Your task to perform on an android device: turn vacation reply on in the gmail app Image 0: 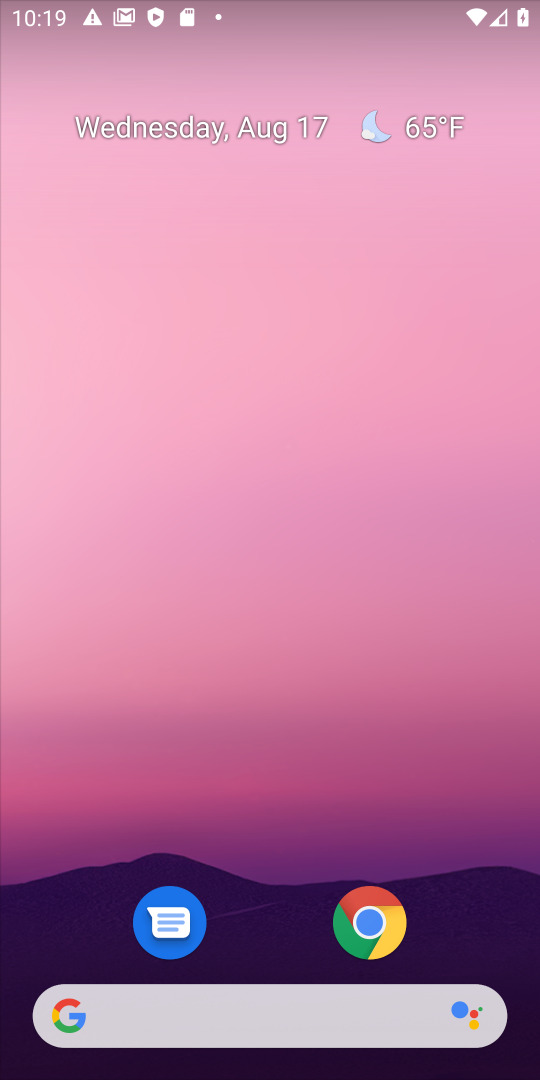
Step 0: drag from (262, 931) to (263, 47)
Your task to perform on an android device: turn vacation reply on in the gmail app Image 1: 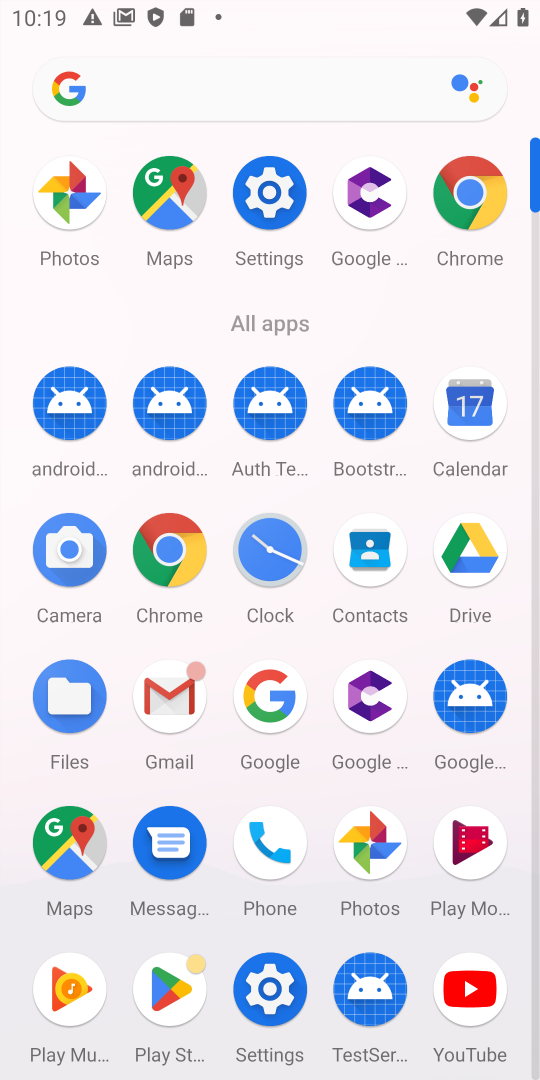
Step 1: click (173, 705)
Your task to perform on an android device: turn vacation reply on in the gmail app Image 2: 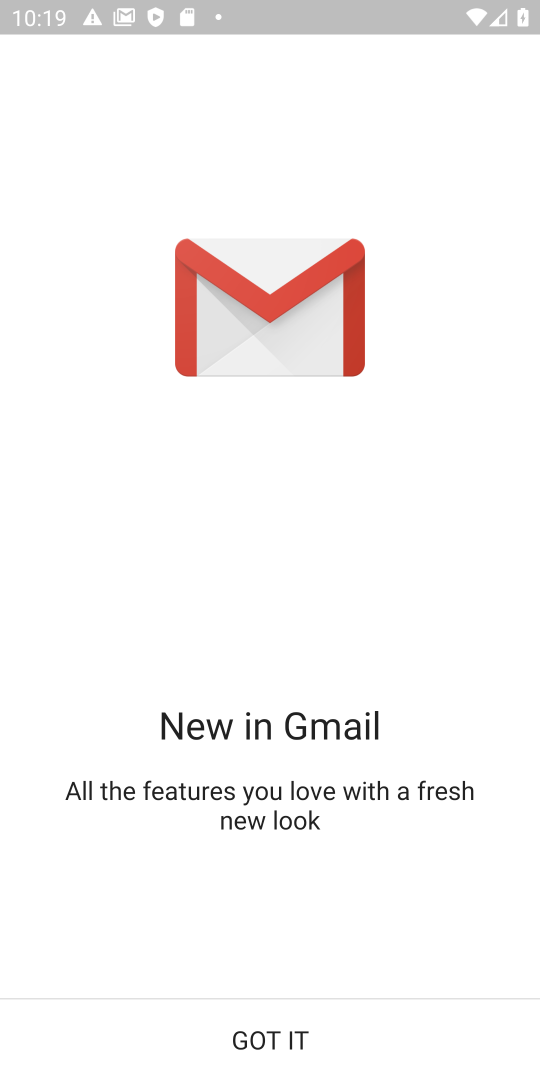
Step 2: click (239, 1057)
Your task to perform on an android device: turn vacation reply on in the gmail app Image 3: 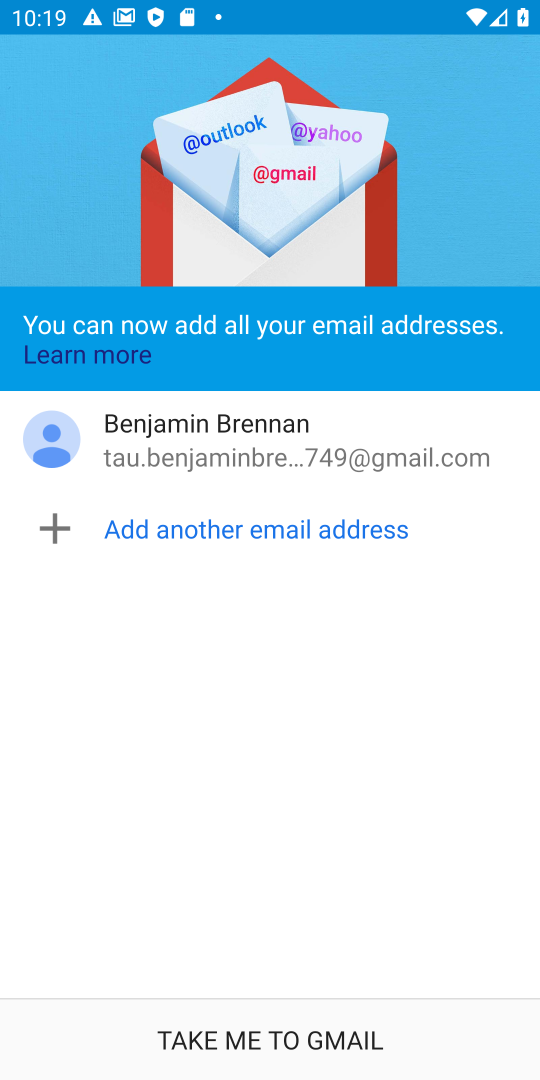
Step 3: click (265, 1024)
Your task to perform on an android device: turn vacation reply on in the gmail app Image 4: 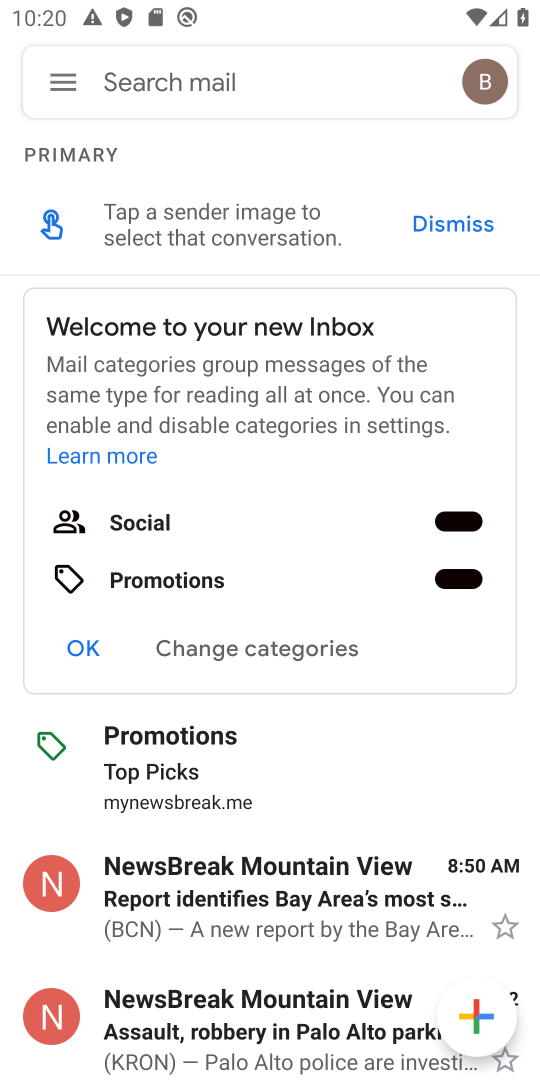
Step 4: click (74, 93)
Your task to perform on an android device: turn vacation reply on in the gmail app Image 5: 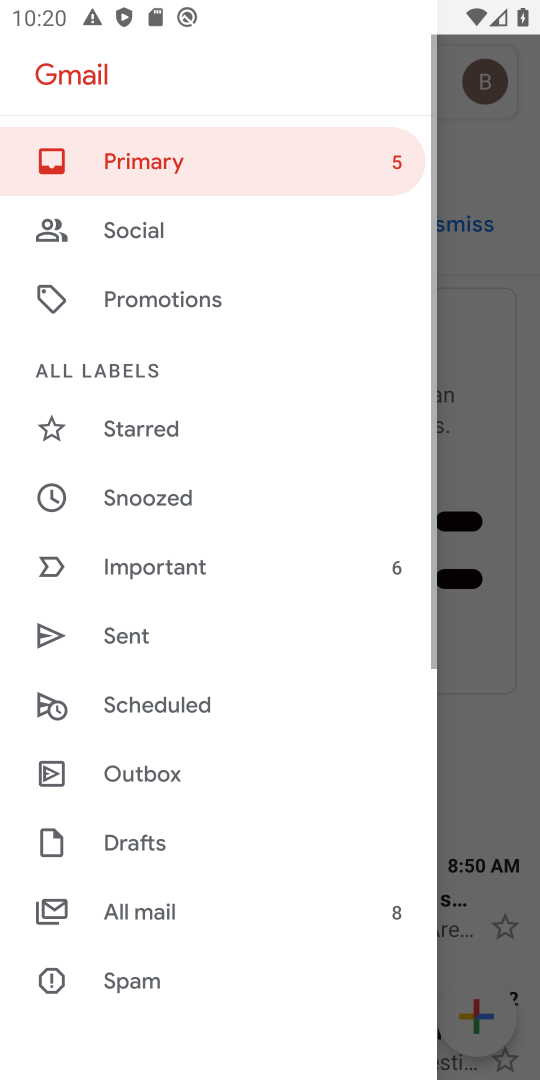
Step 5: drag from (116, 908) to (203, 239)
Your task to perform on an android device: turn vacation reply on in the gmail app Image 6: 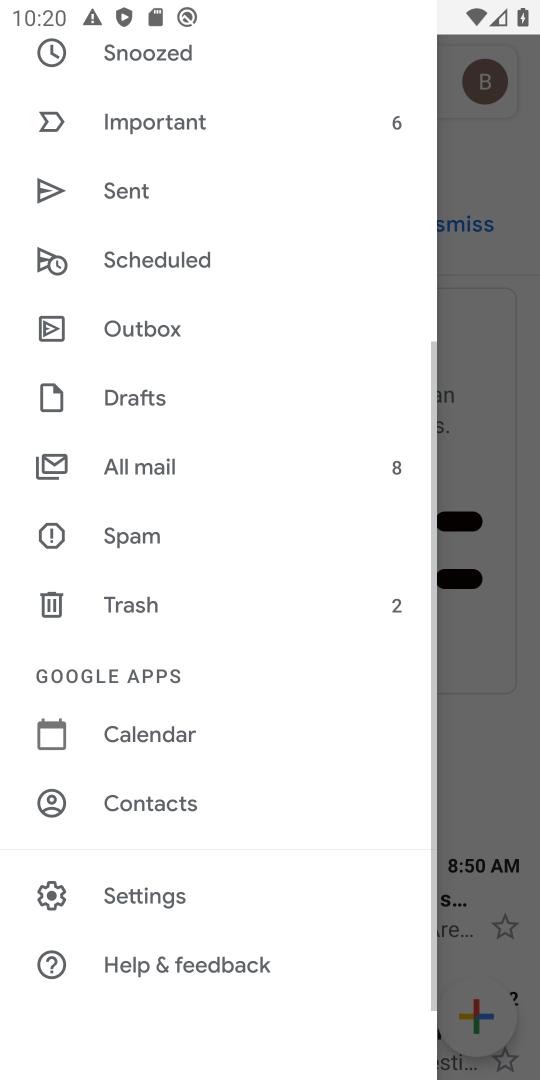
Step 6: click (152, 882)
Your task to perform on an android device: turn vacation reply on in the gmail app Image 7: 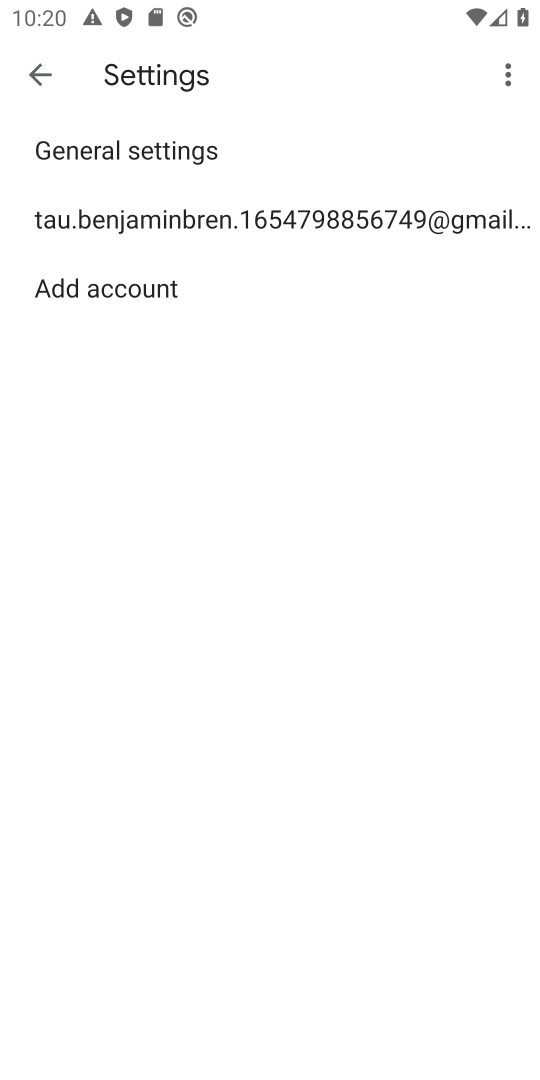
Step 7: click (264, 207)
Your task to perform on an android device: turn vacation reply on in the gmail app Image 8: 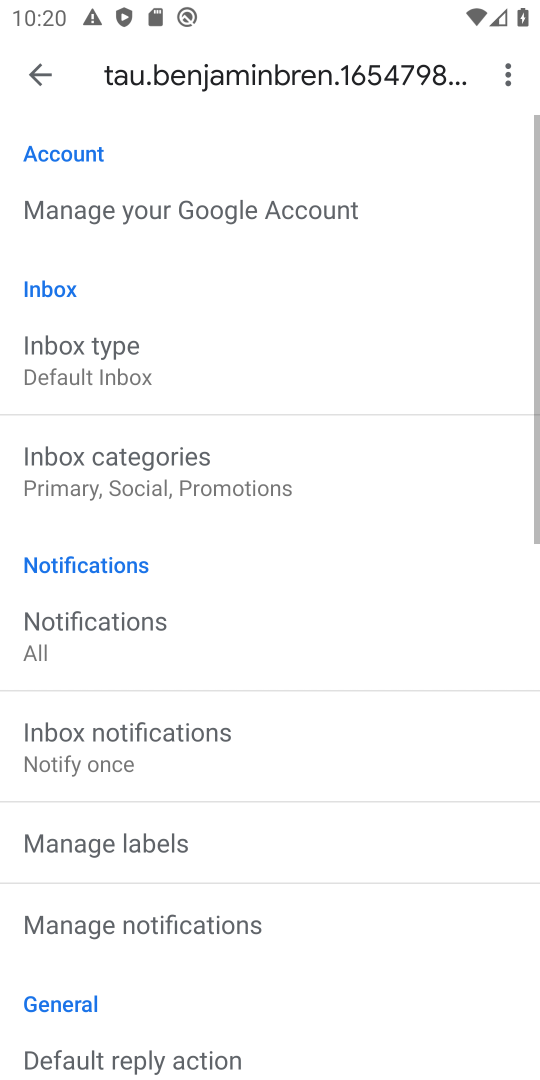
Step 8: drag from (225, 809) to (258, 269)
Your task to perform on an android device: turn vacation reply on in the gmail app Image 9: 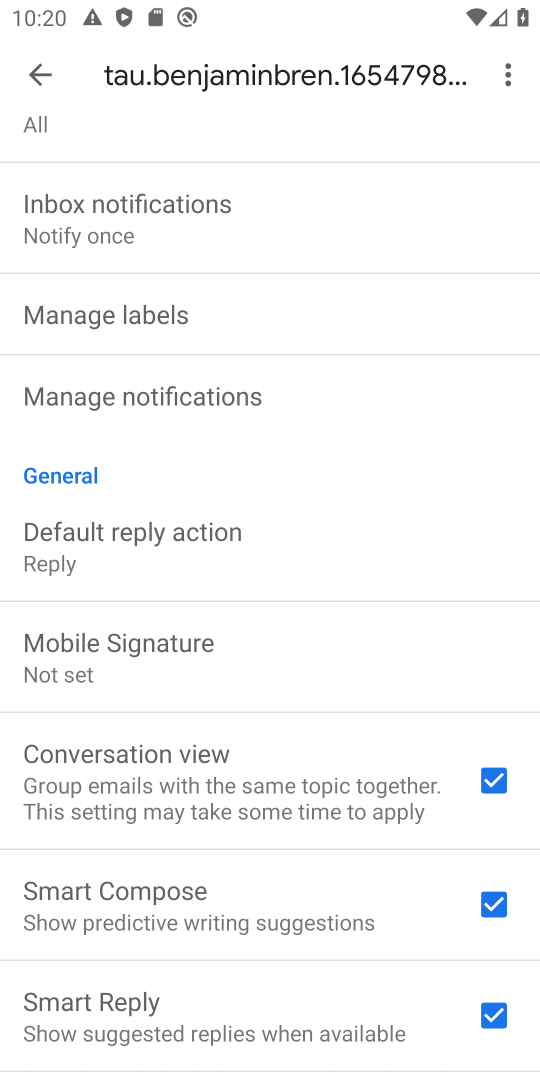
Step 9: drag from (324, 935) to (339, 275)
Your task to perform on an android device: turn vacation reply on in the gmail app Image 10: 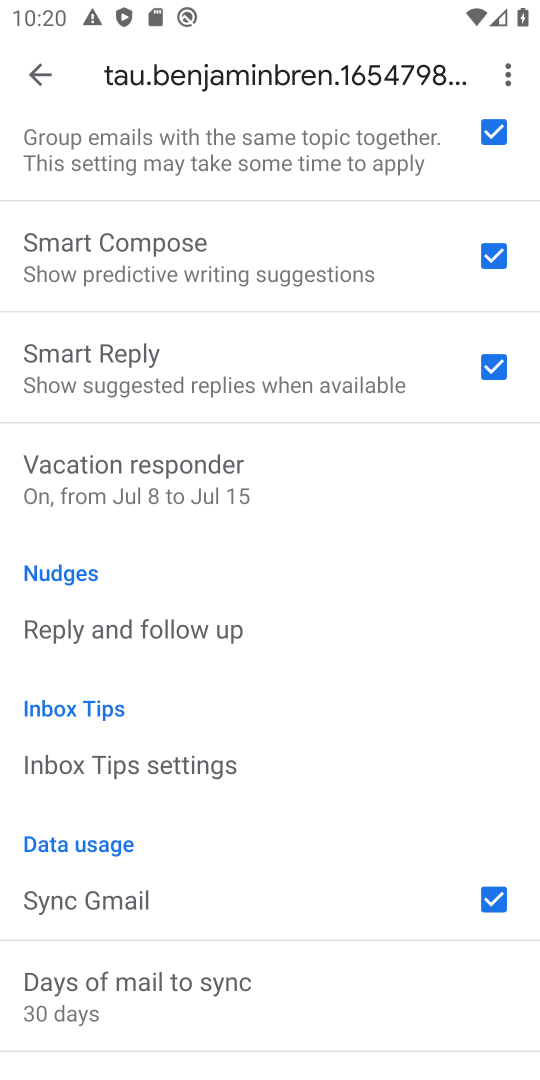
Step 10: click (184, 498)
Your task to perform on an android device: turn vacation reply on in the gmail app Image 11: 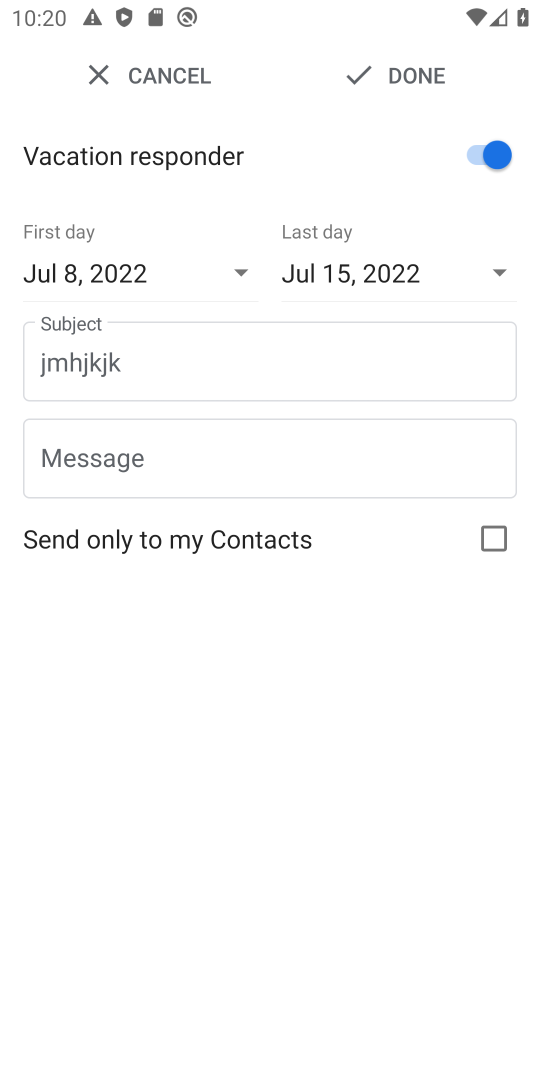
Step 11: task complete